Your task to perform on an android device: Is it going to rain today? Image 0: 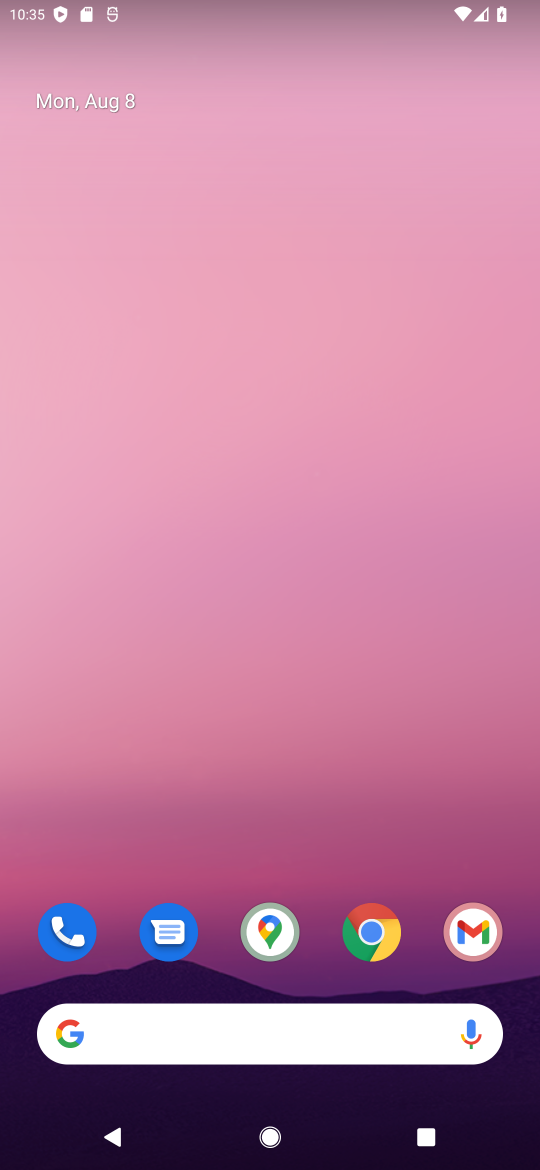
Step 0: click (178, 1030)
Your task to perform on an android device: Is it going to rain today? Image 1: 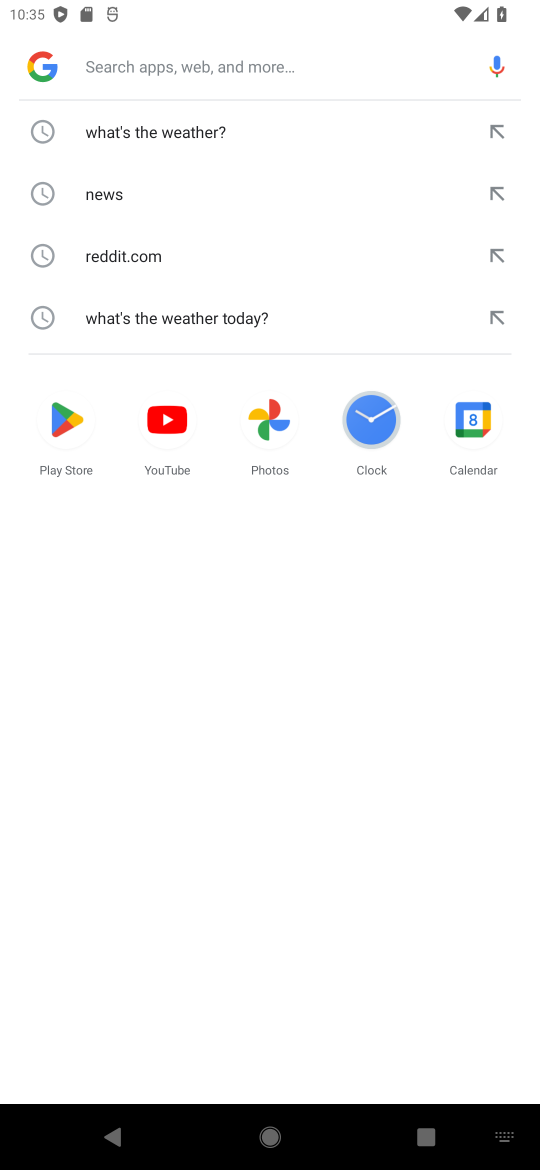
Step 1: type "weather"
Your task to perform on an android device: Is it going to rain today? Image 2: 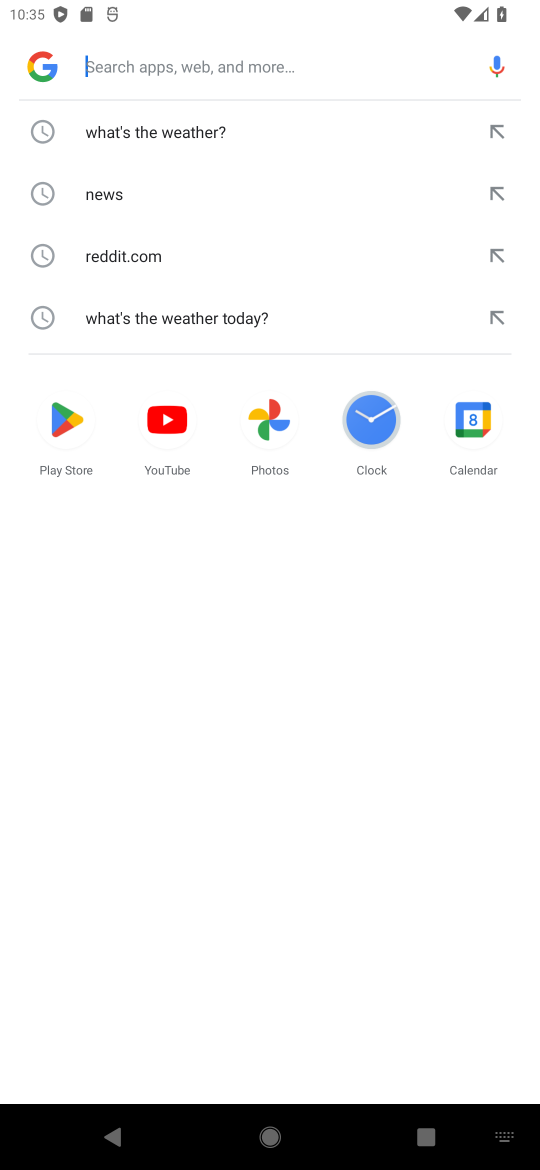
Step 2: click (226, 125)
Your task to perform on an android device: Is it going to rain today? Image 3: 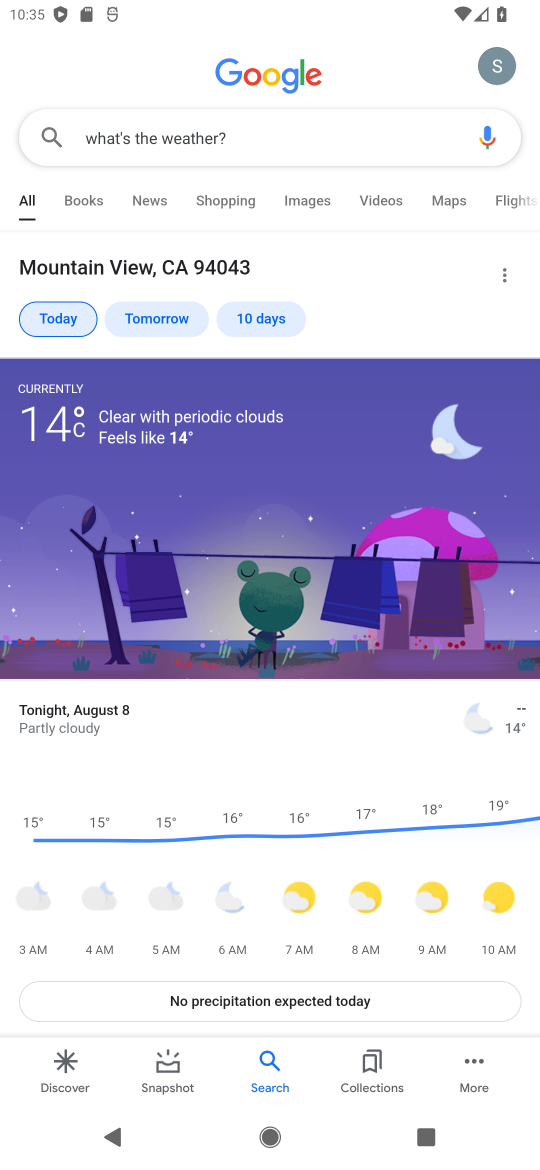
Step 3: task complete